Your task to perform on an android device: Open Yahoo.com Image 0: 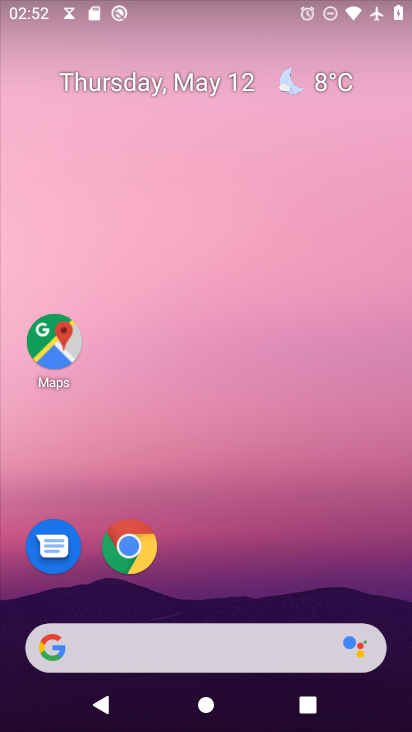
Step 0: press home button
Your task to perform on an android device: Open Yahoo.com Image 1: 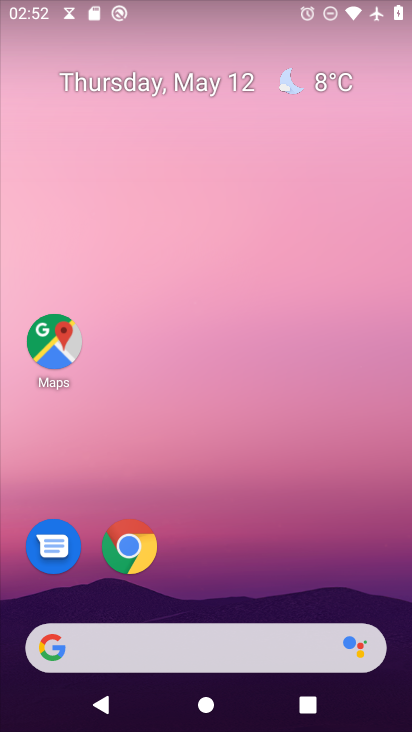
Step 1: drag from (155, 647) to (264, 136)
Your task to perform on an android device: Open Yahoo.com Image 2: 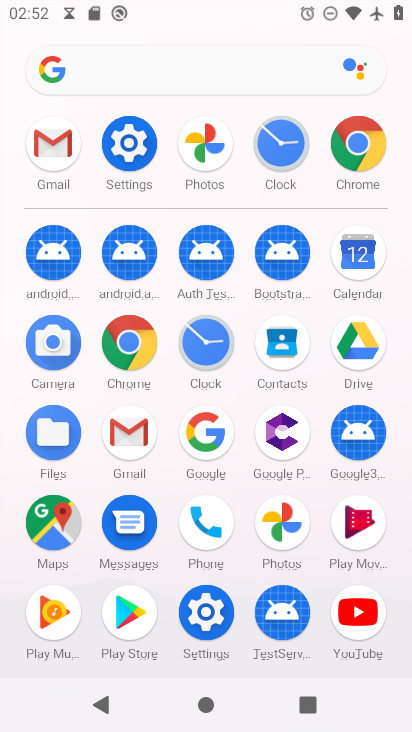
Step 2: click (360, 159)
Your task to perform on an android device: Open Yahoo.com Image 3: 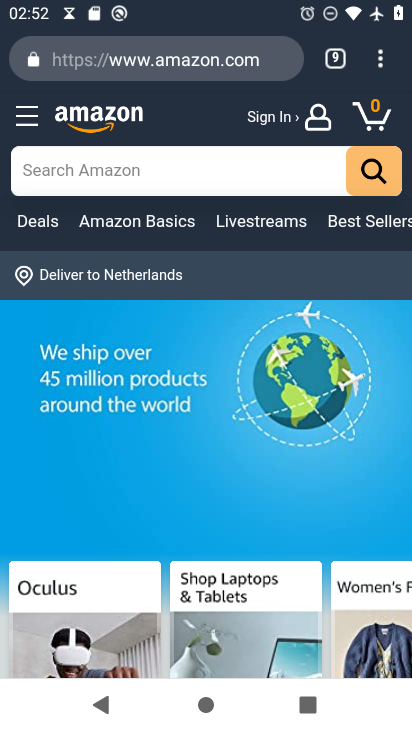
Step 3: drag from (381, 64) to (251, 121)
Your task to perform on an android device: Open Yahoo.com Image 4: 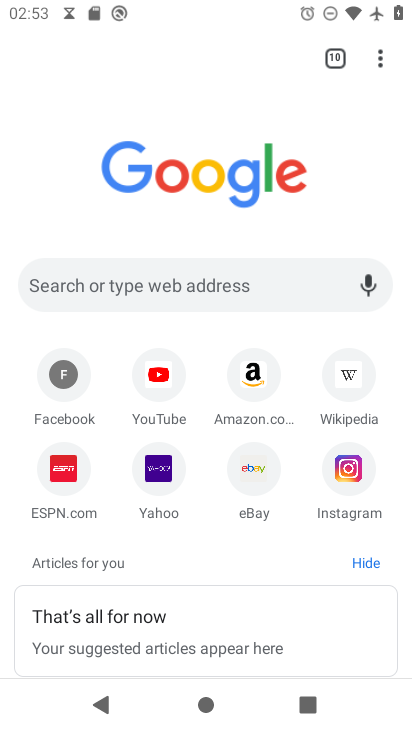
Step 4: click (155, 473)
Your task to perform on an android device: Open Yahoo.com Image 5: 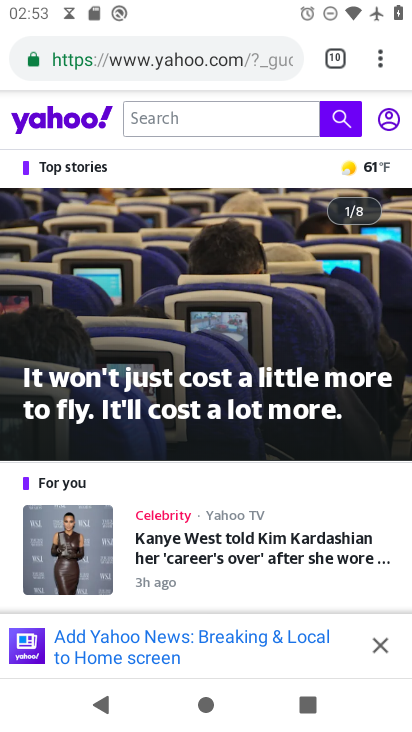
Step 5: task complete